Your task to perform on an android device: Open a new Chrome window Image 0: 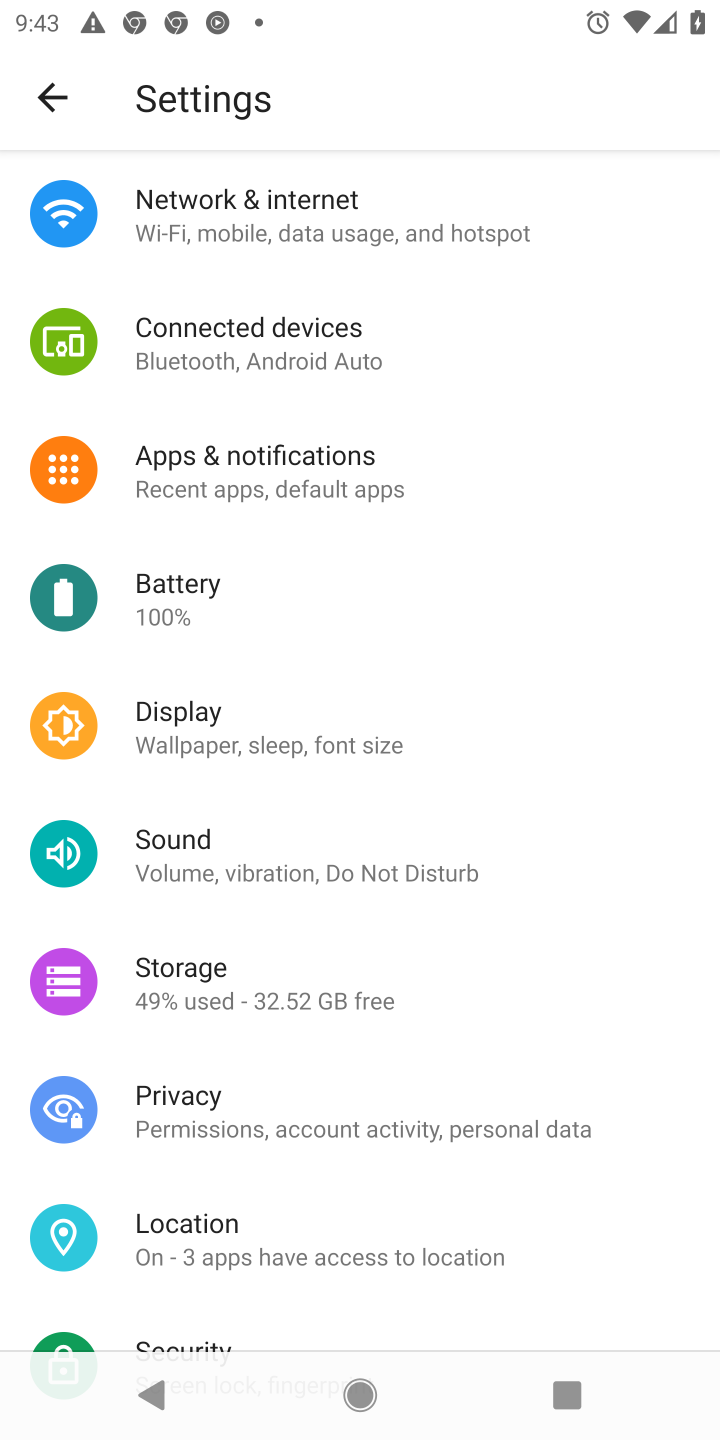
Step 0: press home button
Your task to perform on an android device: Open a new Chrome window Image 1: 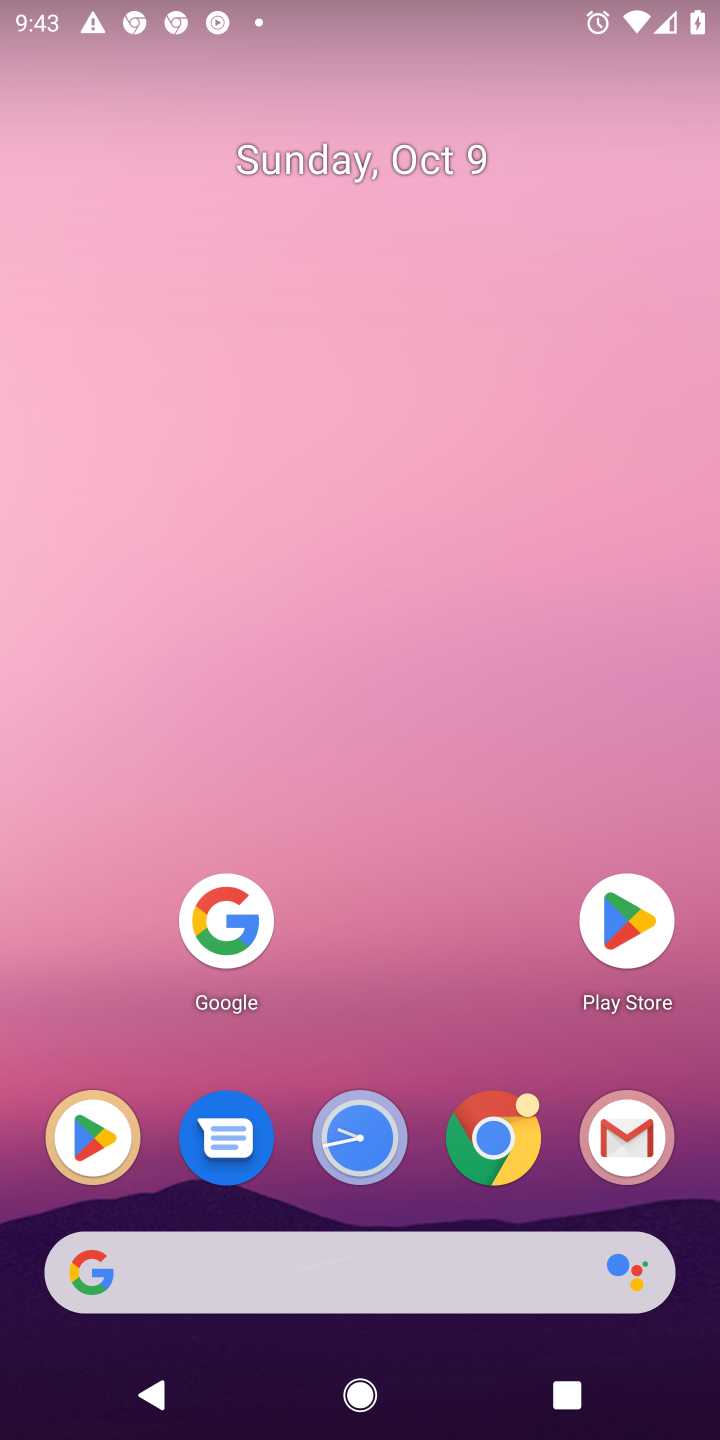
Step 1: click (509, 1119)
Your task to perform on an android device: Open a new Chrome window Image 2: 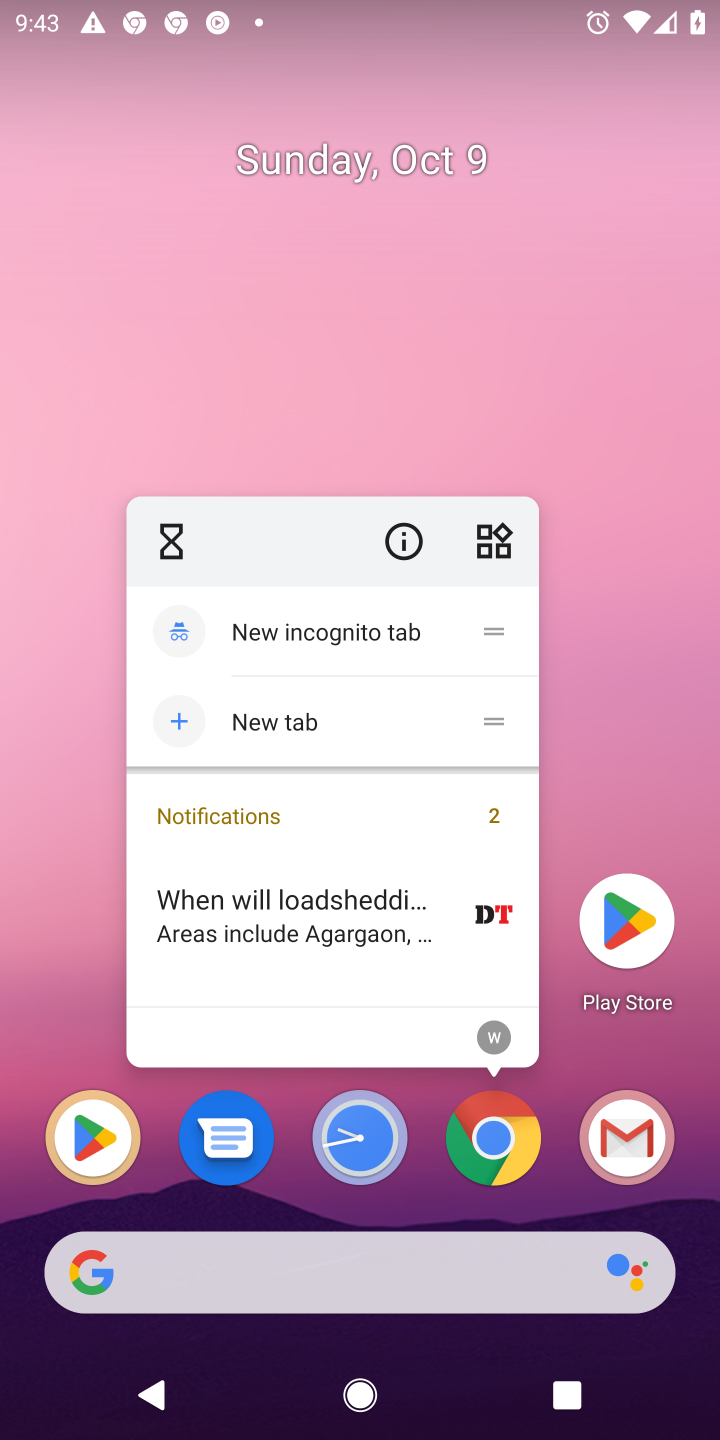
Step 2: click (506, 1131)
Your task to perform on an android device: Open a new Chrome window Image 3: 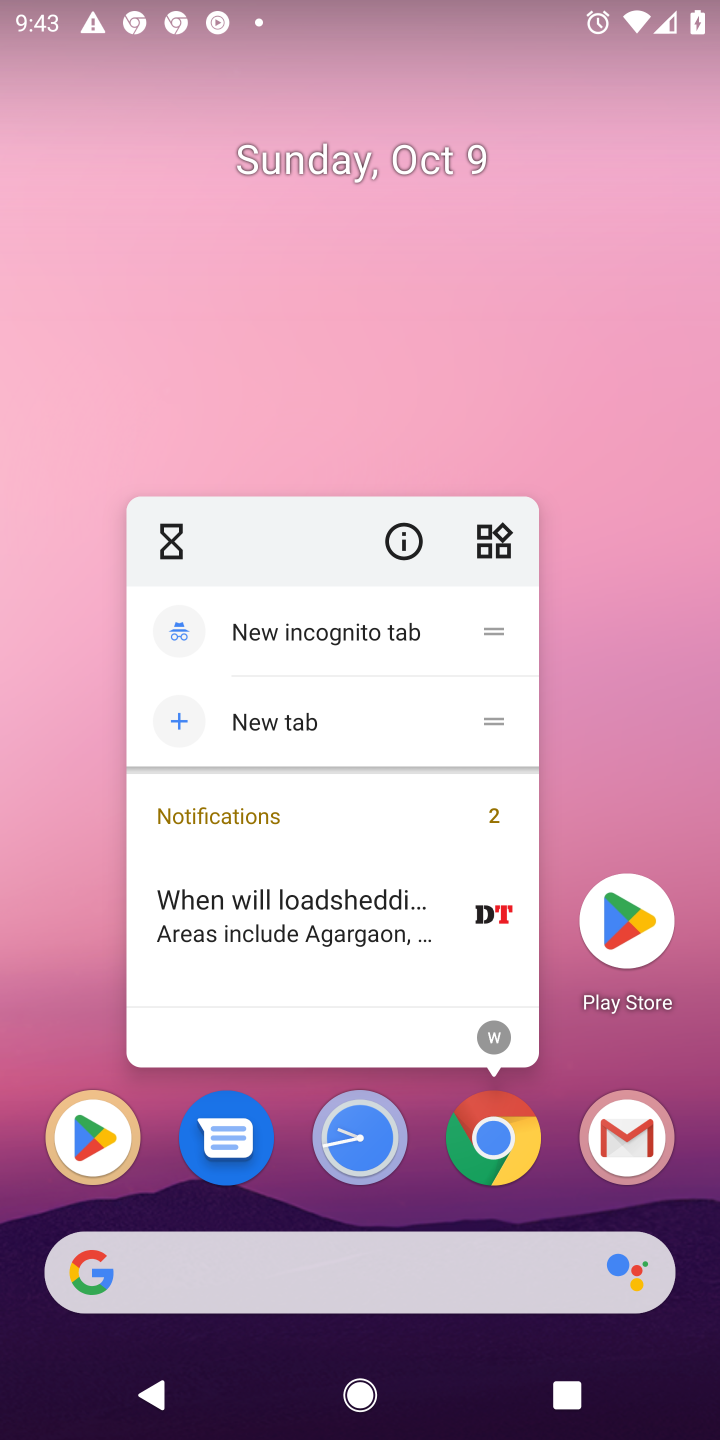
Step 3: click (491, 1131)
Your task to perform on an android device: Open a new Chrome window Image 4: 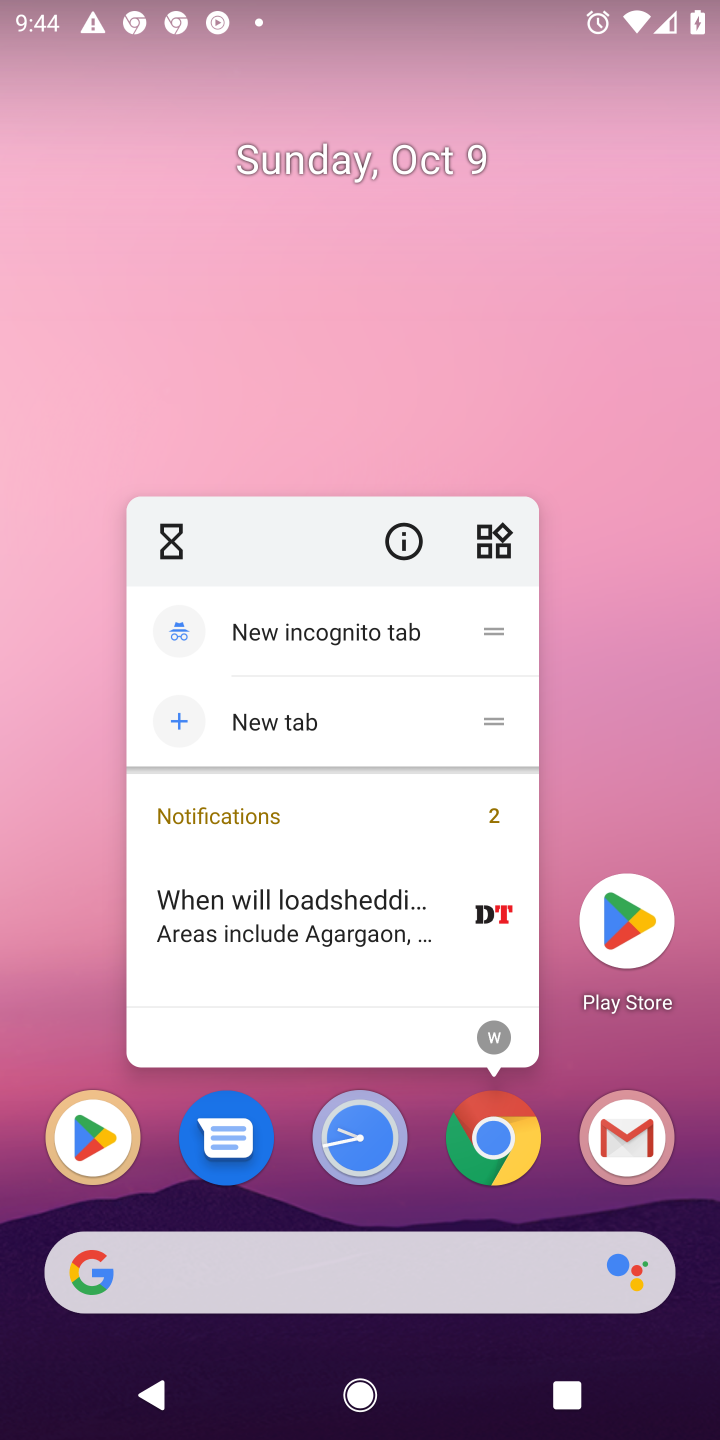
Step 4: click (353, 1225)
Your task to perform on an android device: Open a new Chrome window Image 5: 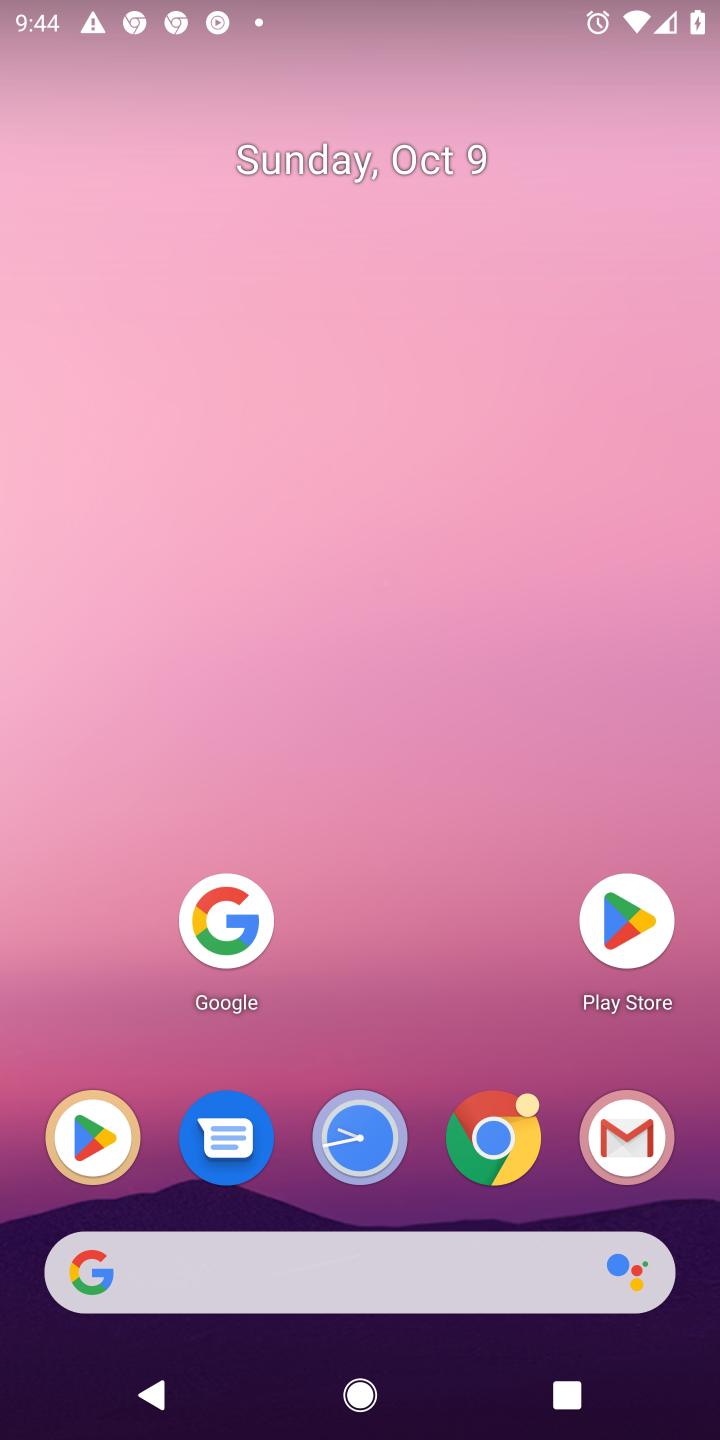
Step 5: drag from (395, 1235) to (434, 327)
Your task to perform on an android device: Open a new Chrome window Image 6: 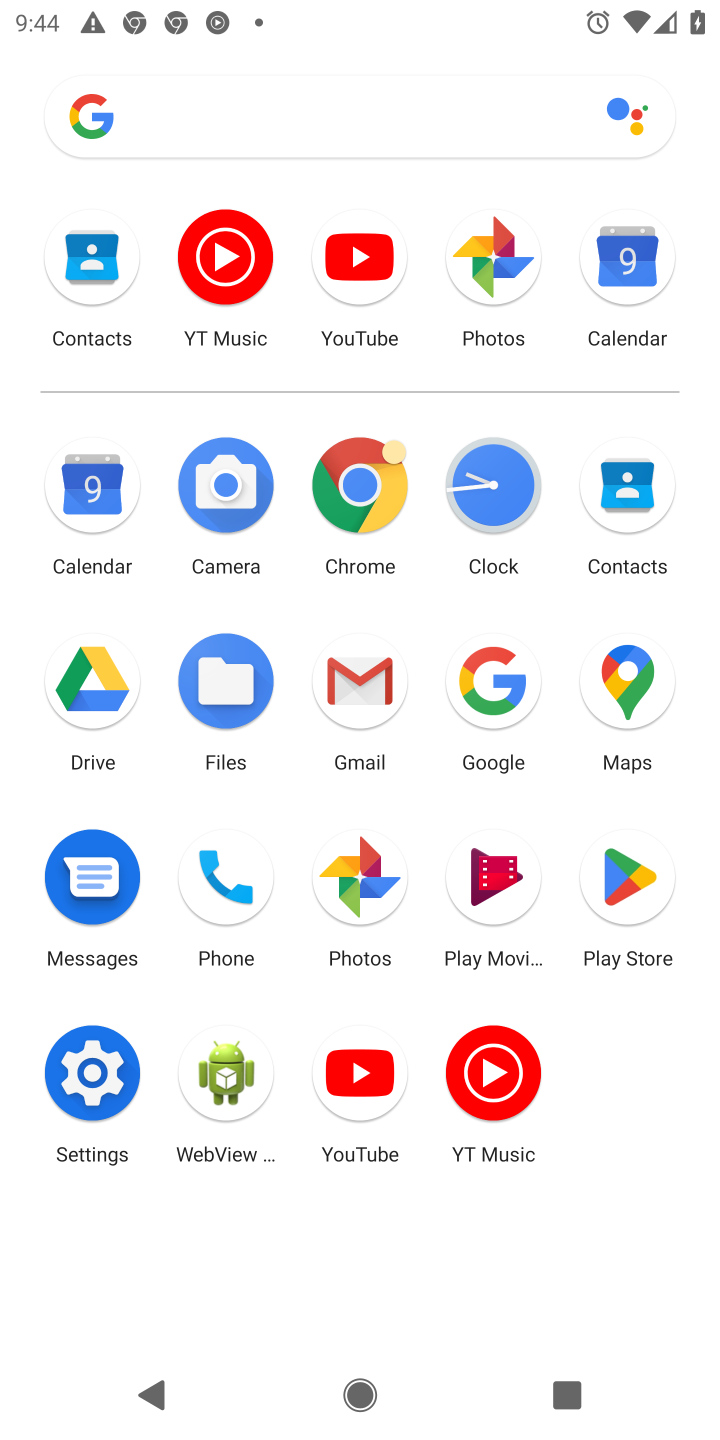
Step 6: click (354, 466)
Your task to perform on an android device: Open a new Chrome window Image 7: 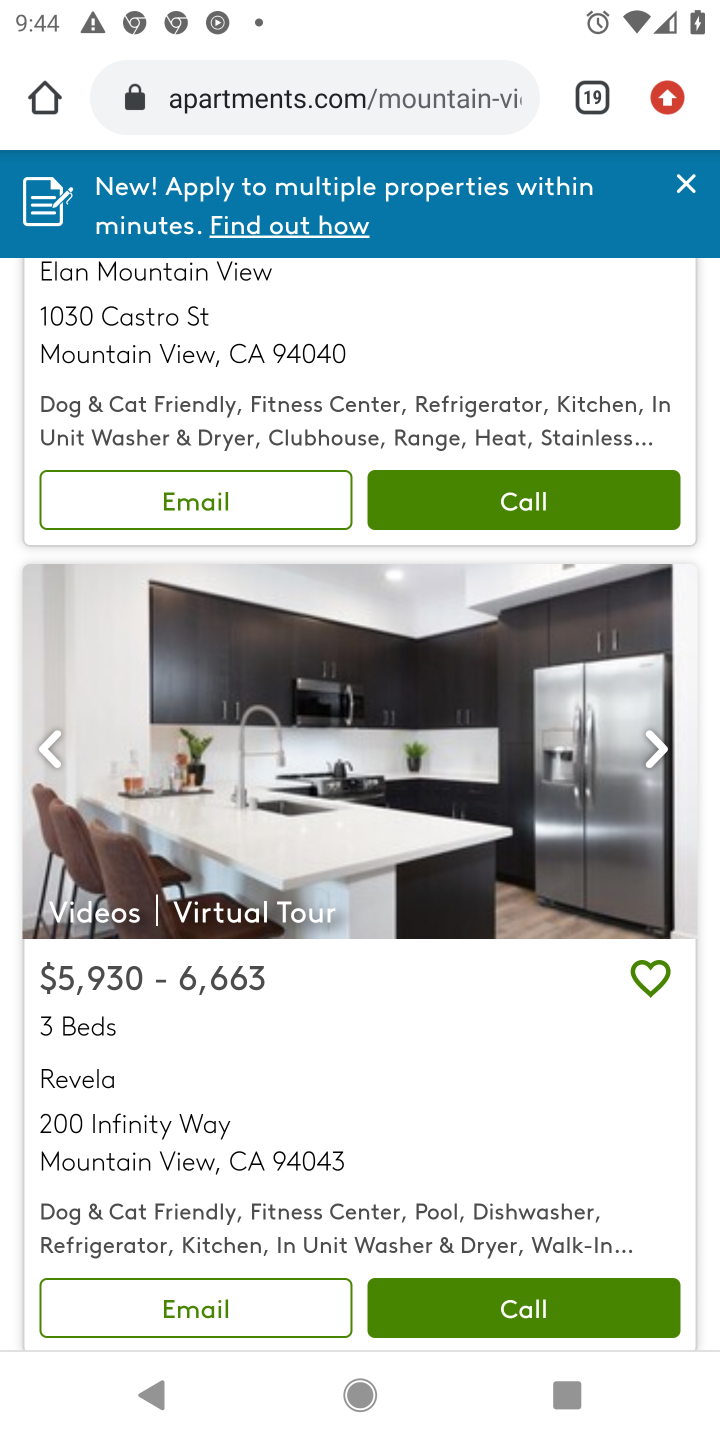
Step 7: click (667, 93)
Your task to perform on an android device: Open a new Chrome window Image 8: 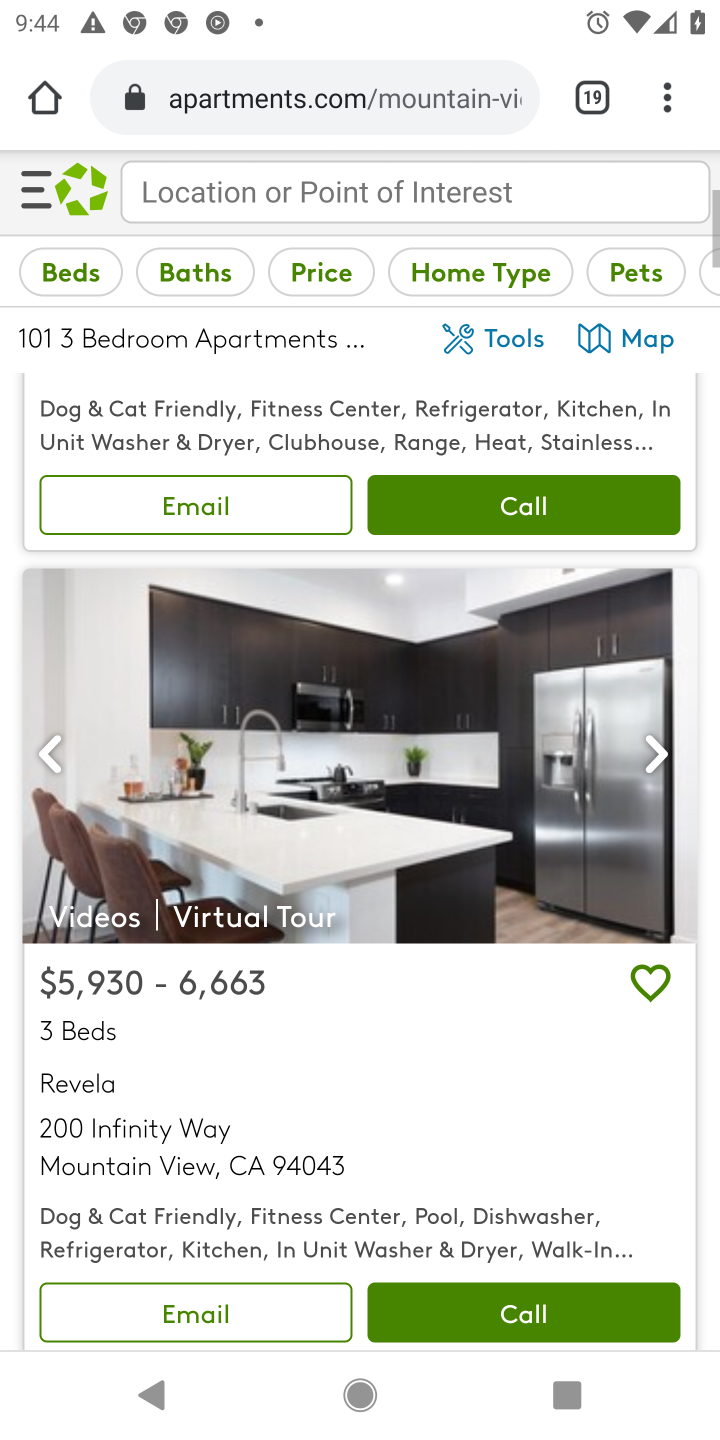
Step 8: click (675, 104)
Your task to perform on an android device: Open a new Chrome window Image 9: 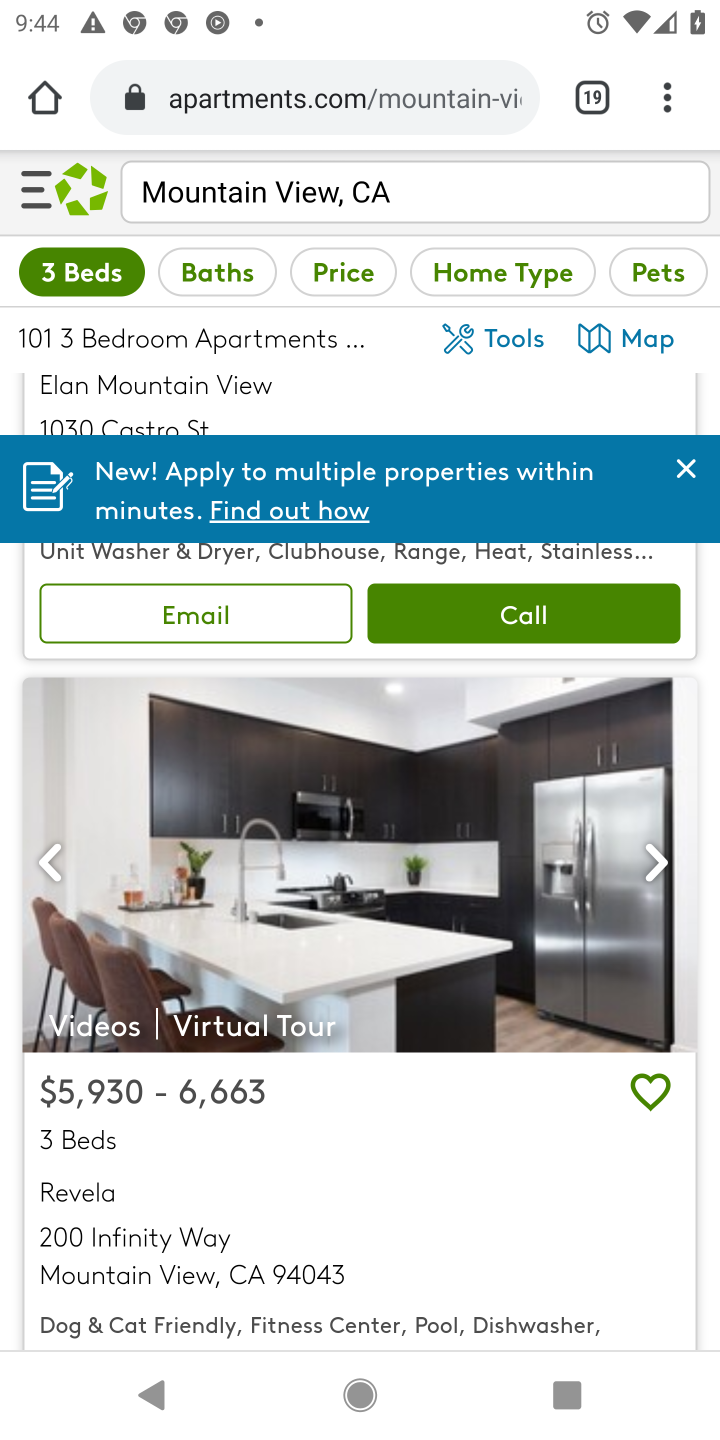
Step 9: click (675, 104)
Your task to perform on an android device: Open a new Chrome window Image 10: 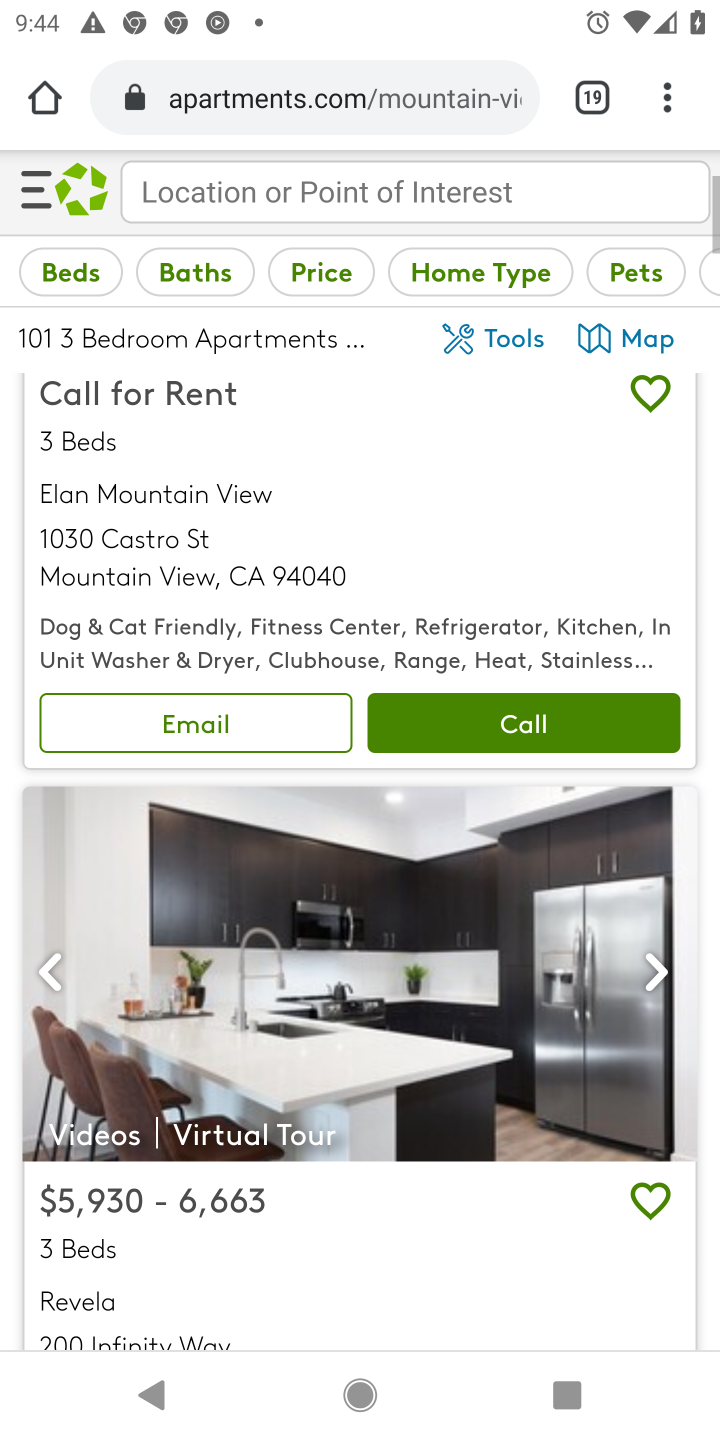
Step 10: click (654, 104)
Your task to perform on an android device: Open a new Chrome window Image 11: 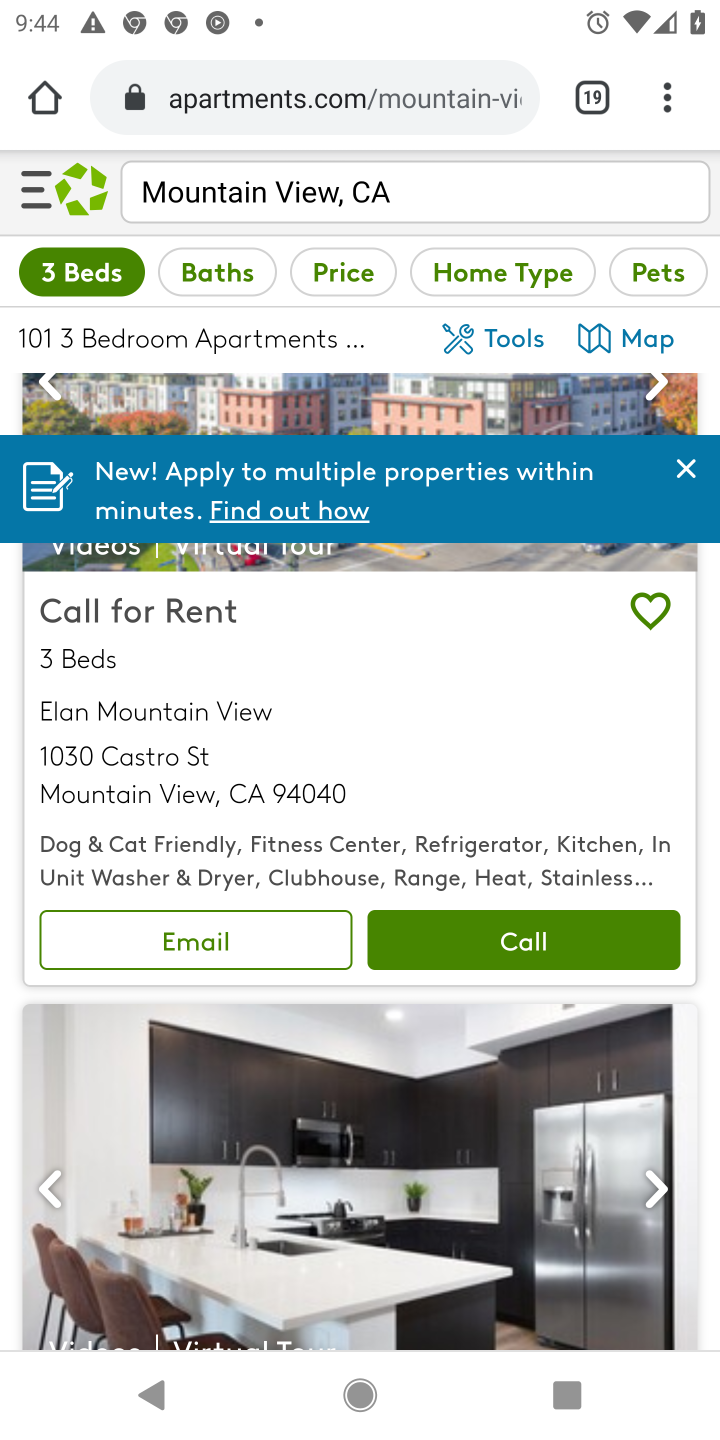
Step 11: click (669, 90)
Your task to perform on an android device: Open a new Chrome window Image 12: 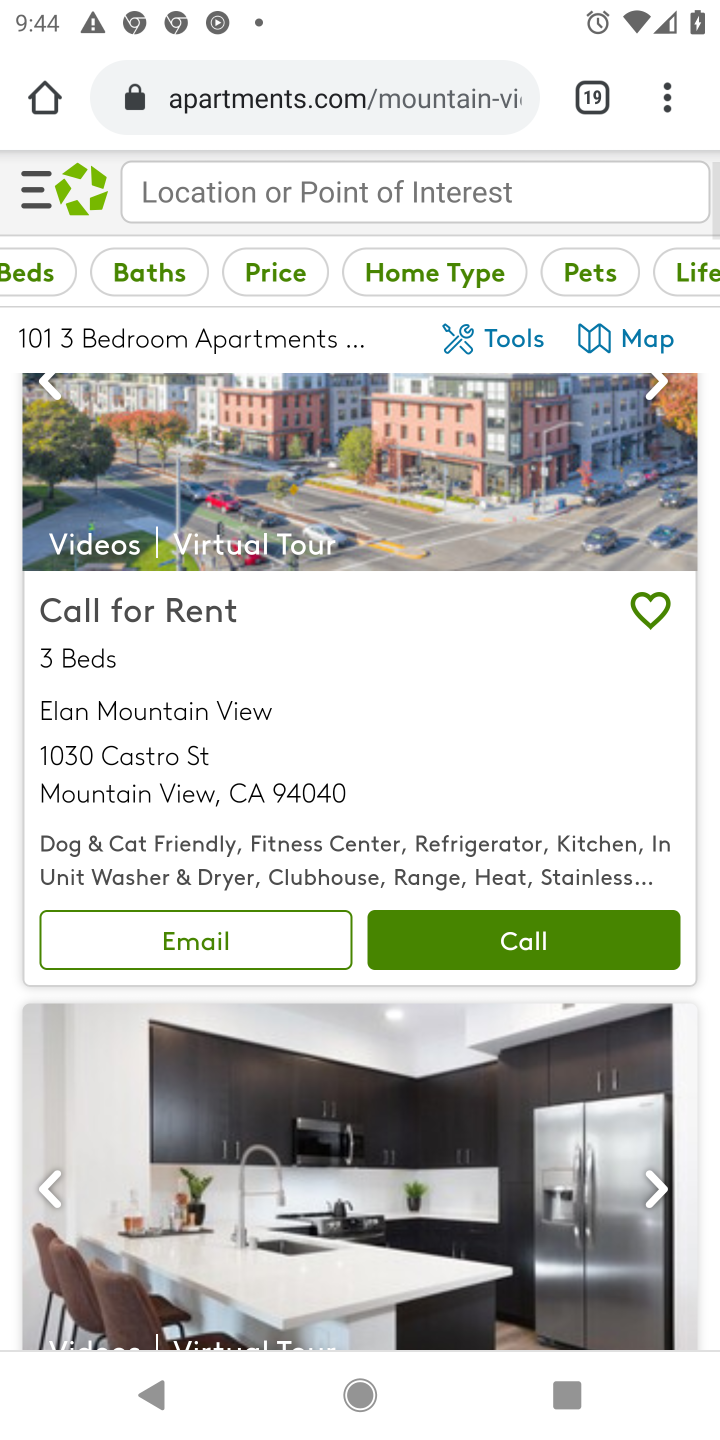
Step 12: click (669, 104)
Your task to perform on an android device: Open a new Chrome window Image 13: 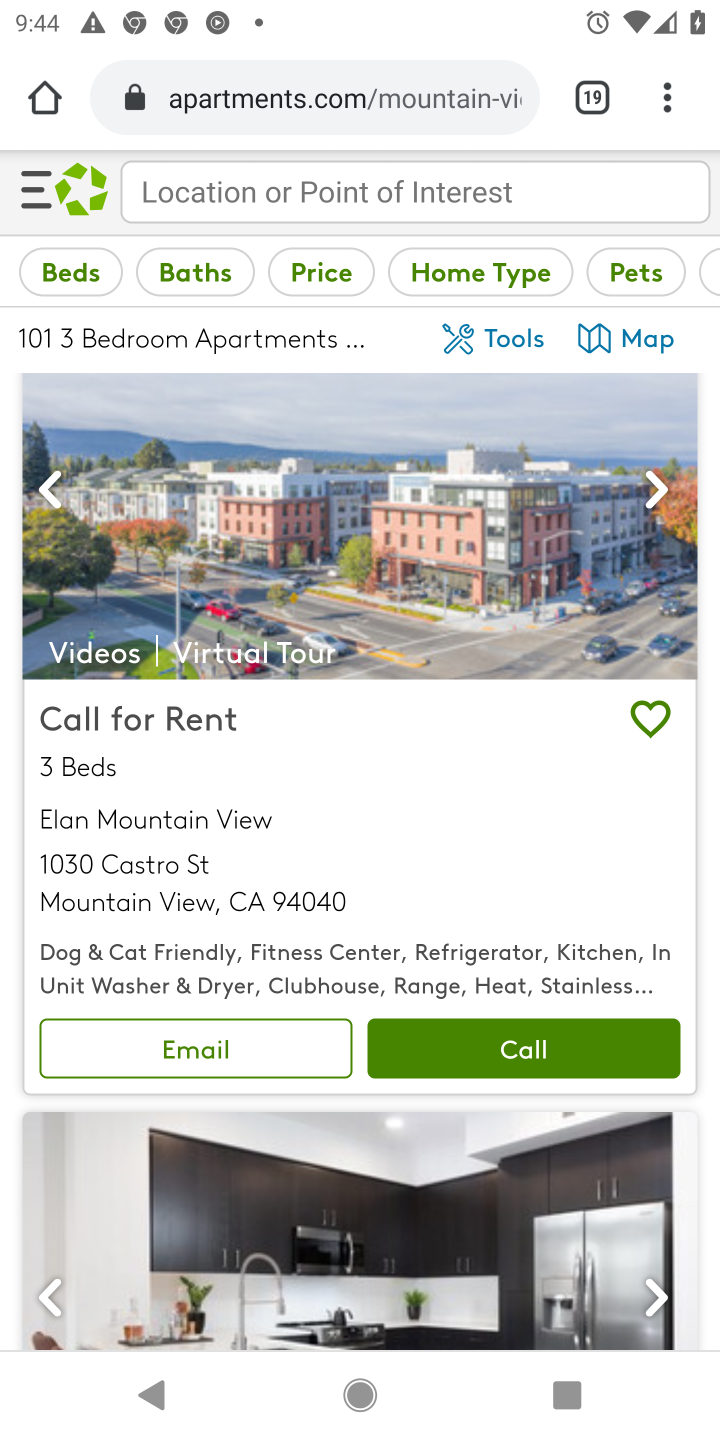
Step 13: click (661, 97)
Your task to perform on an android device: Open a new Chrome window Image 14: 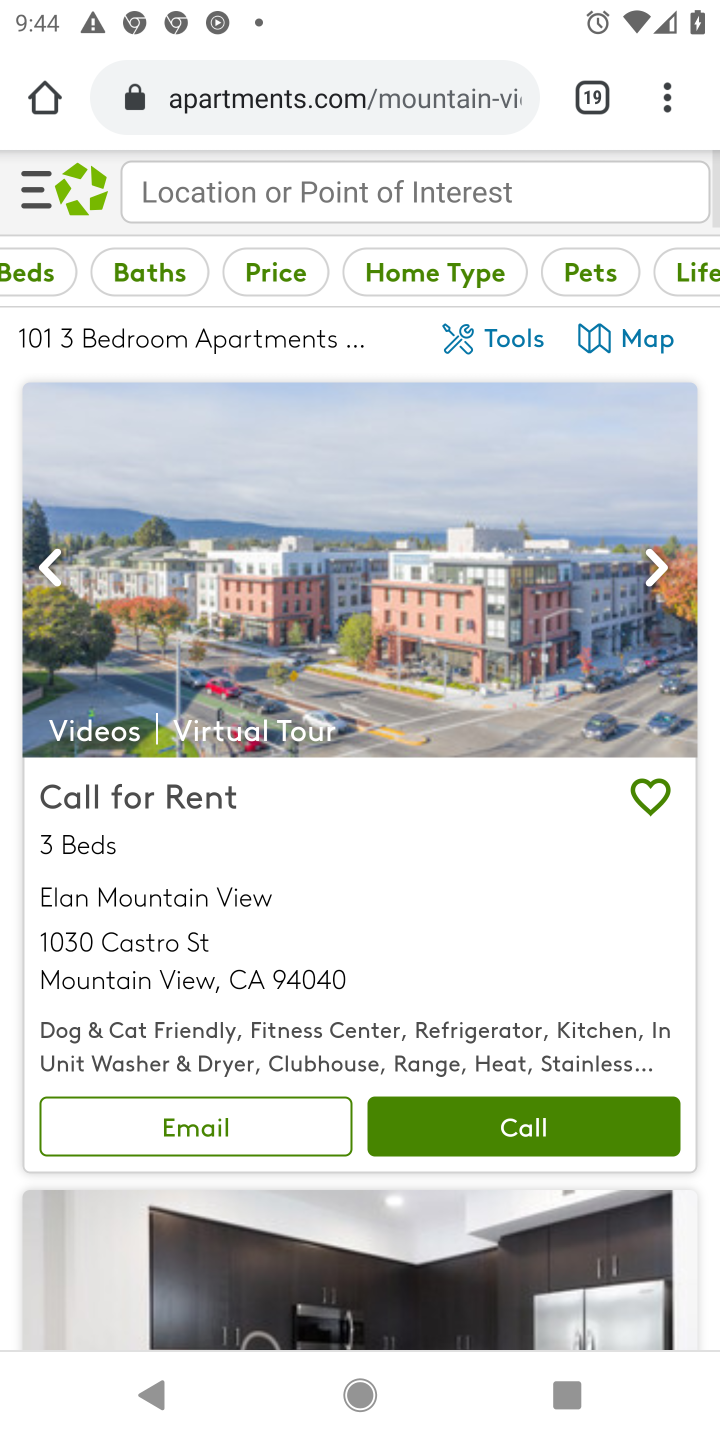
Step 14: click (672, 100)
Your task to perform on an android device: Open a new Chrome window Image 15: 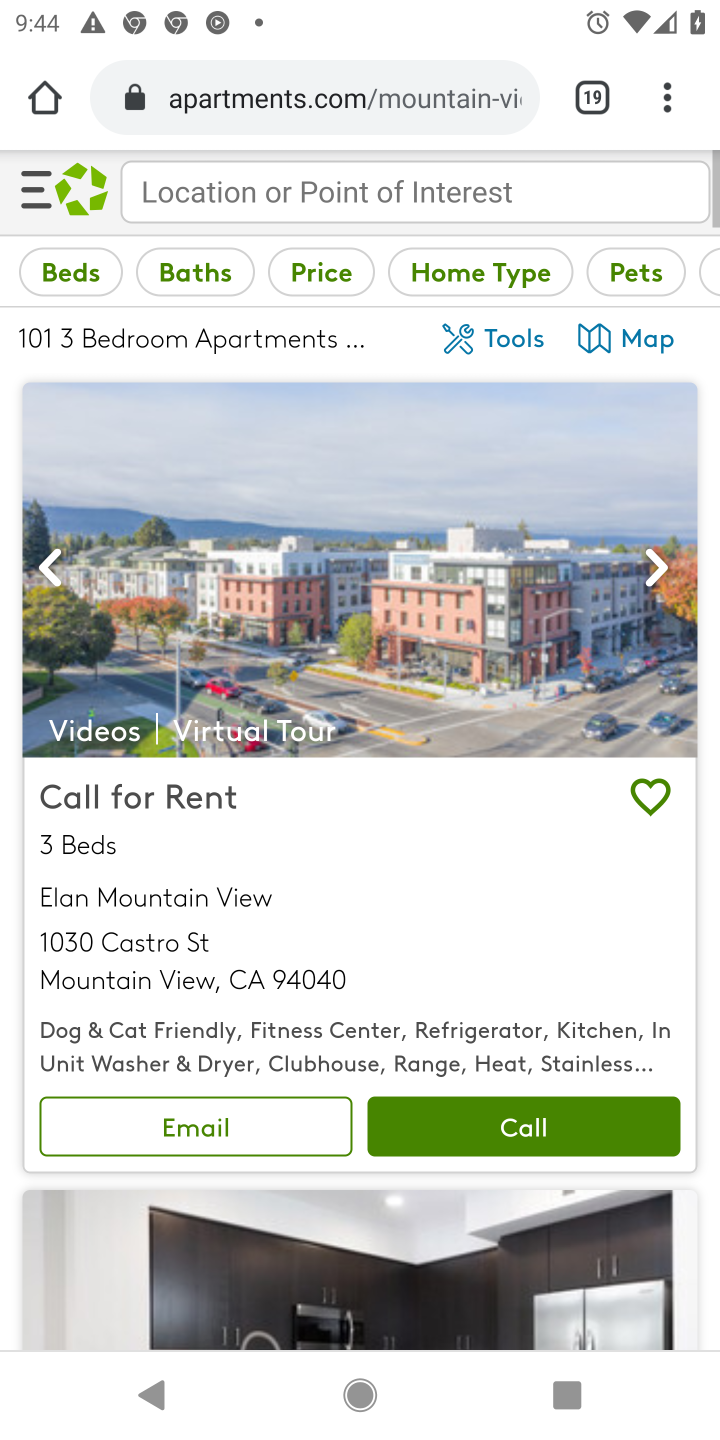
Step 15: click (656, 95)
Your task to perform on an android device: Open a new Chrome window Image 16: 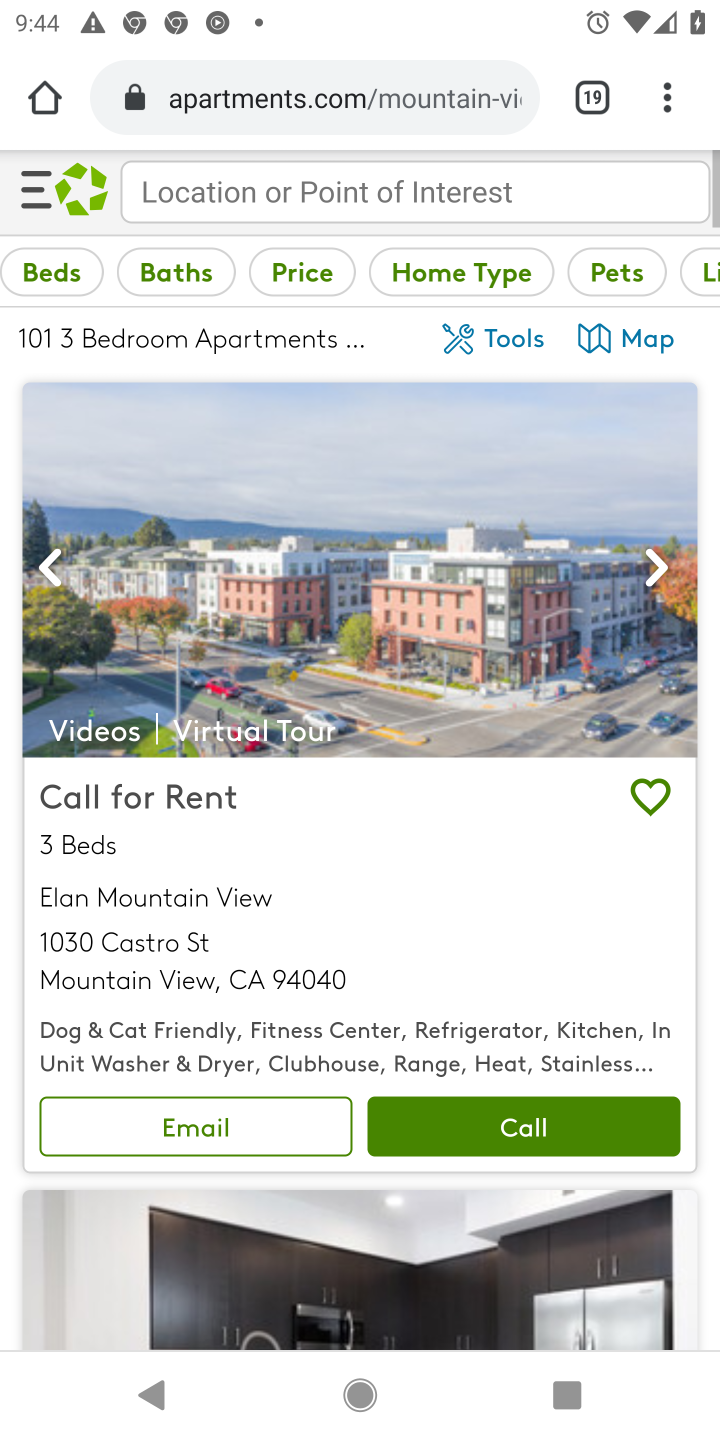
Step 16: click (656, 95)
Your task to perform on an android device: Open a new Chrome window Image 17: 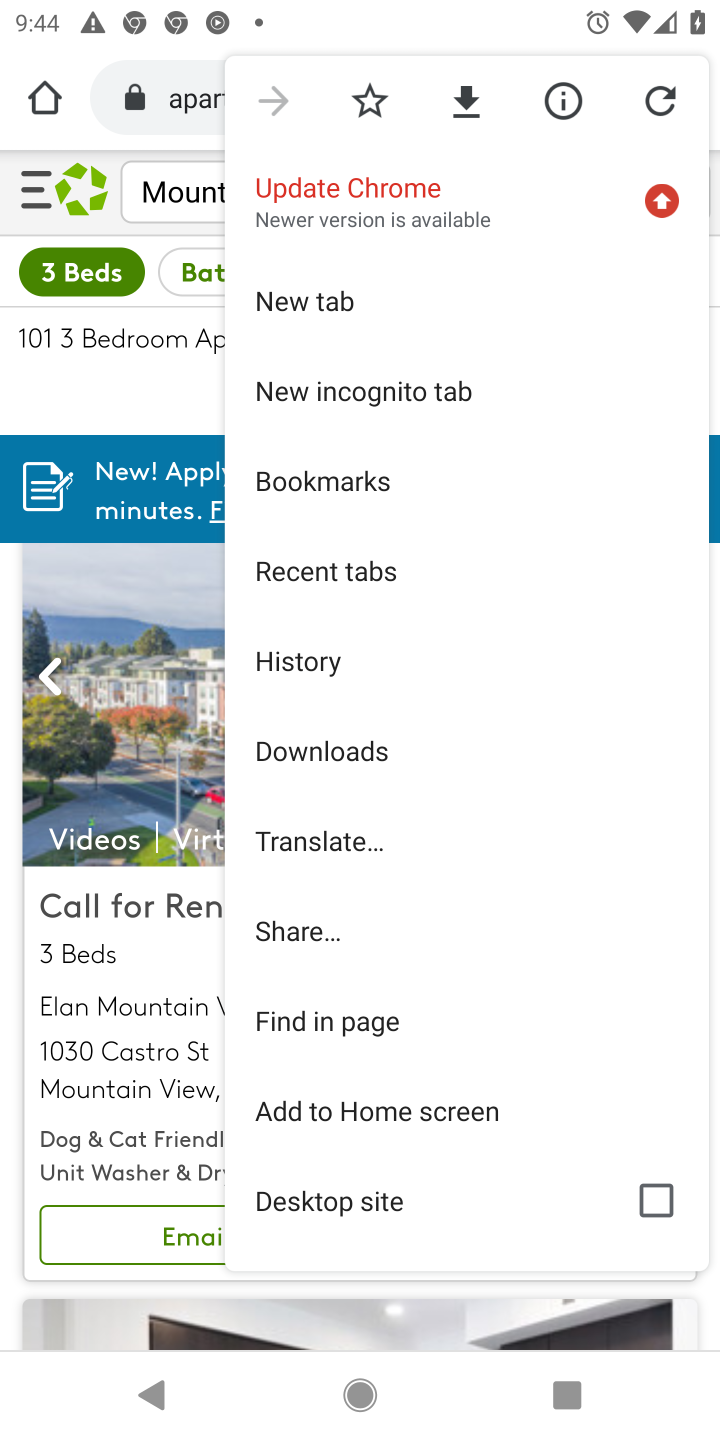
Step 17: click (310, 292)
Your task to perform on an android device: Open a new Chrome window Image 18: 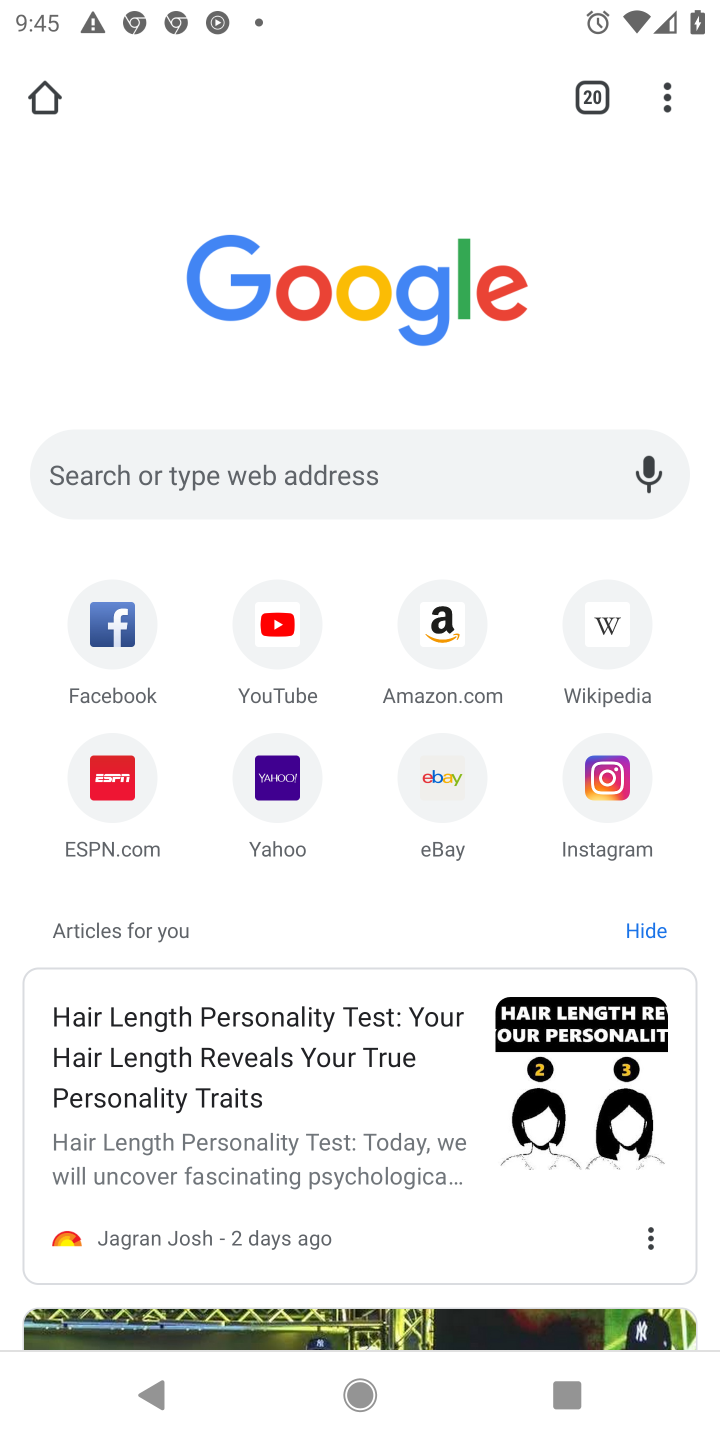
Step 18: task complete